Your task to perform on an android device: see tabs open on other devices in the chrome app Image 0: 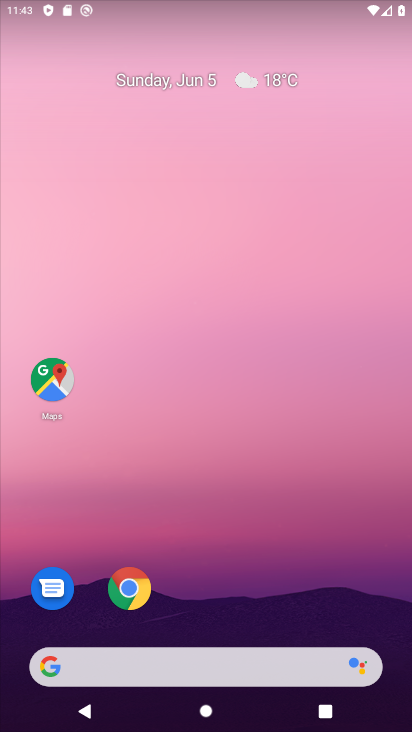
Step 0: drag from (246, 634) to (343, 42)
Your task to perform on an android device: see tabs open on other devices in the chrome app Image 1: 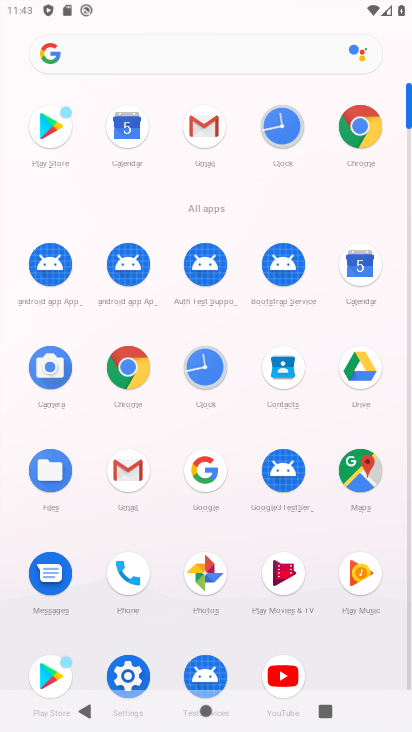
Step 1: click (344, 114)
Your task to perform on an android device: see tabs open on other devices in the chrome app Image 2: 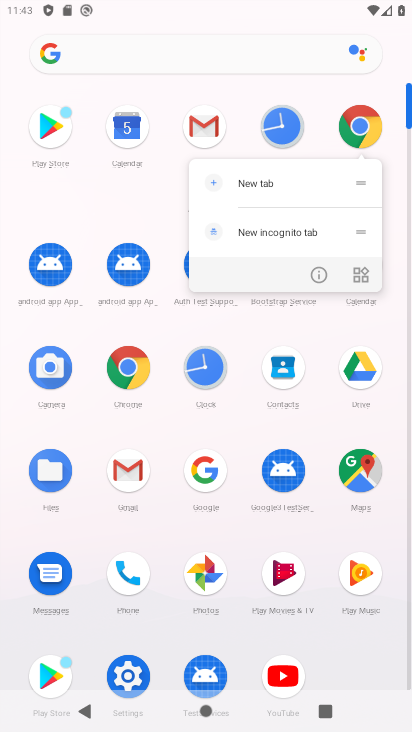
Step 2: click (376, 120)
Your task to perform on an android device: see tabs open on other devices in the chrome app Image 3: 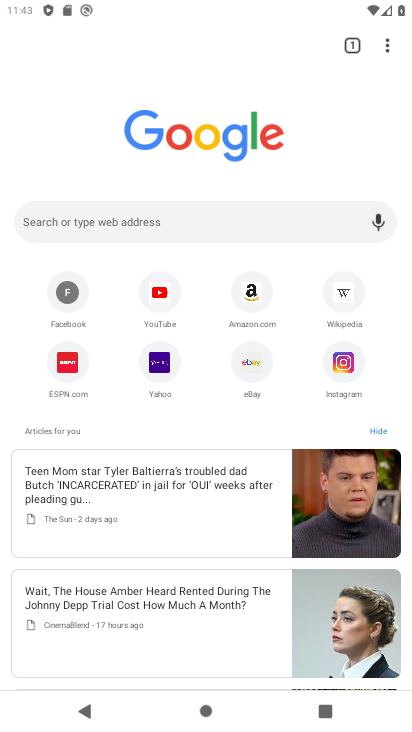
Step 3: task complete